Your task to perform on an android device: Go to Maps Image 0: 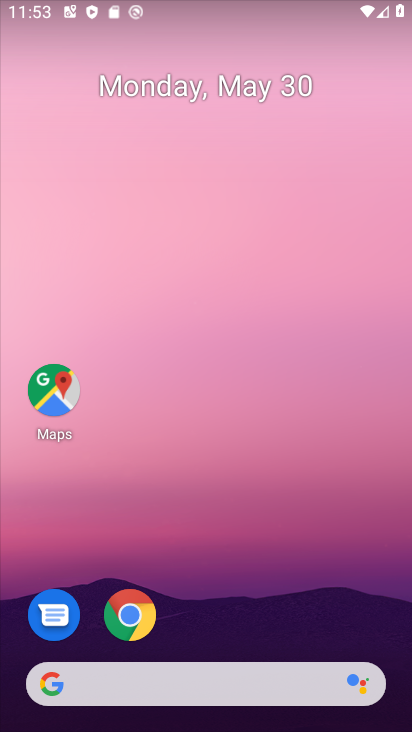
Step 0: drag from (347, 615) to (340, 223)
Your task to perform on an android device: Go to Maps Image 1: 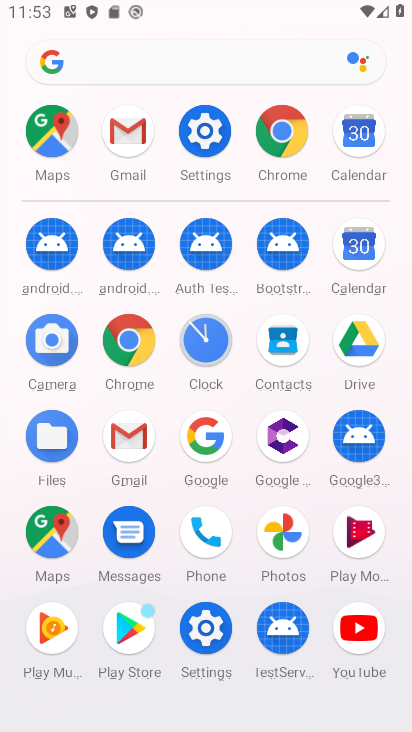
Step 1: click (61, 531)
Your task to perform on an android device: Go to Maps Image 2: 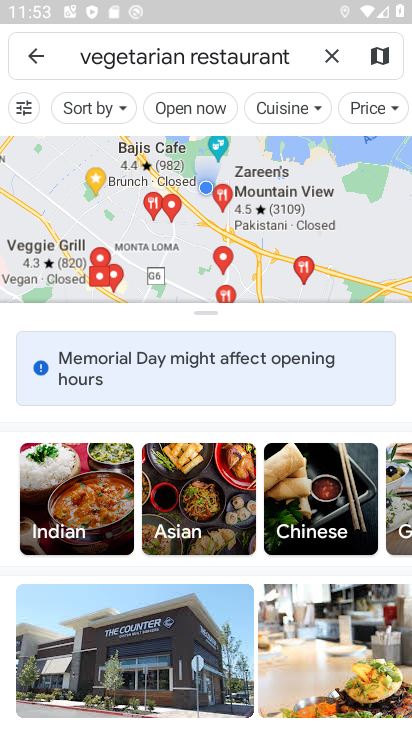
Step 2: task complete